Your task to perform on an android device: change the clock display to analog Image 0: 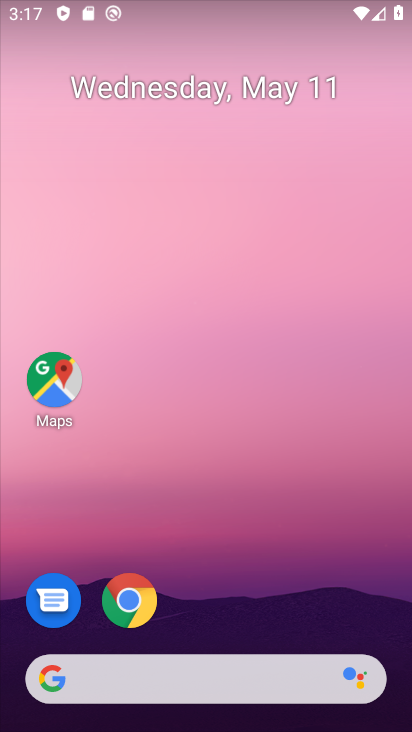
Step 0: drag from (312, 615) to (300, 3)
Your task to perform on an android device: change the clock display to analog Image 1: 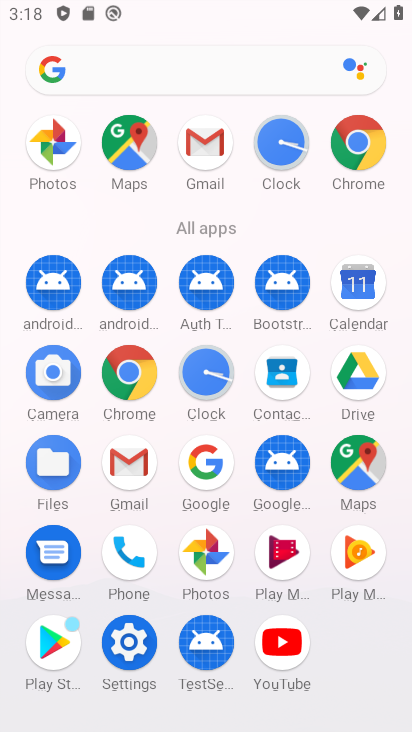
Step 1: click (280, 146)
Your task to perform on an android device: change the clock display to analog Image 2: 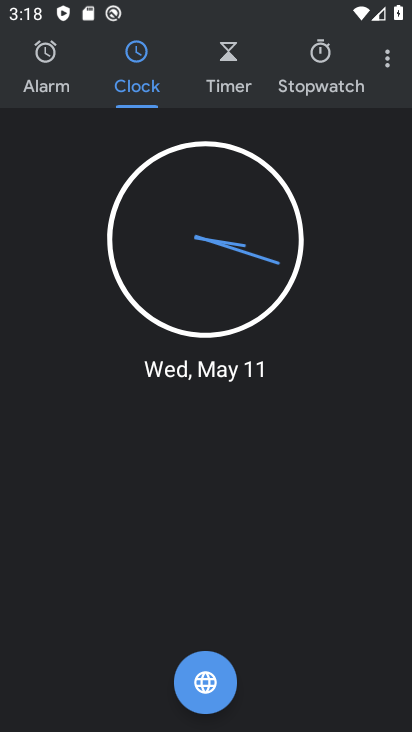
Step 2: click (389, 59)
Your task to perform on an android device: change the clock display to analog Image 3: 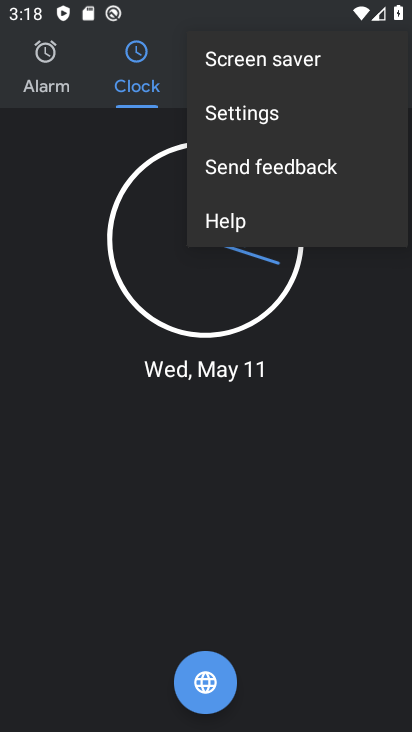
Step 3: click (246, 112)
Your task to perform on an android device: change the clock display to analog Image 4: 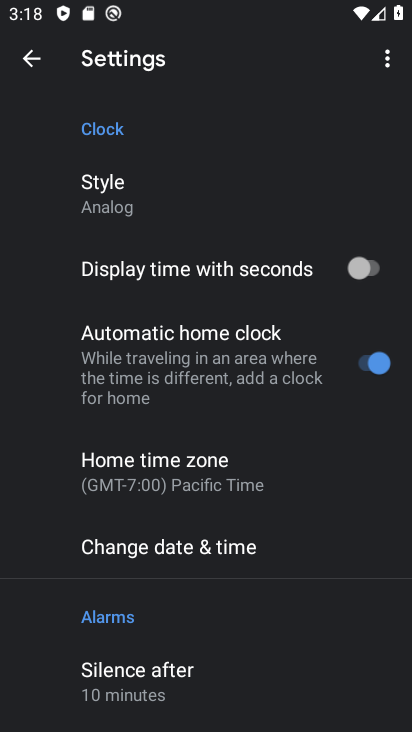
Step 4: task complete